Your task to perform on an android device: Add "usb-c" to the cart on bestbuy.com, then select checkout. Image 0: 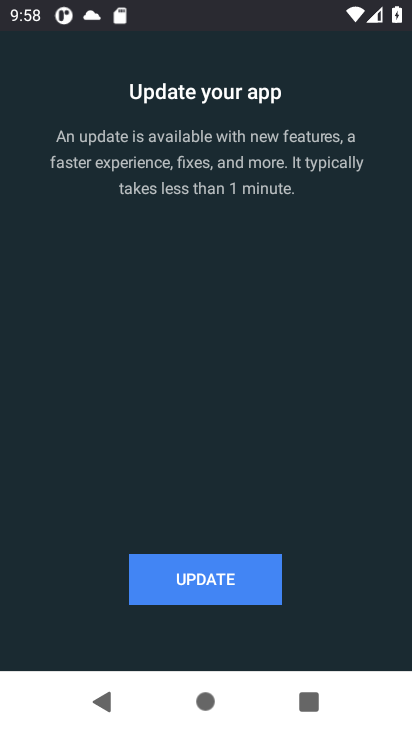
Step 0: press home button
Your task to perform on an android device: Add "usb-c" to the cart on bestbuy.com, then select checkout. Image 1: 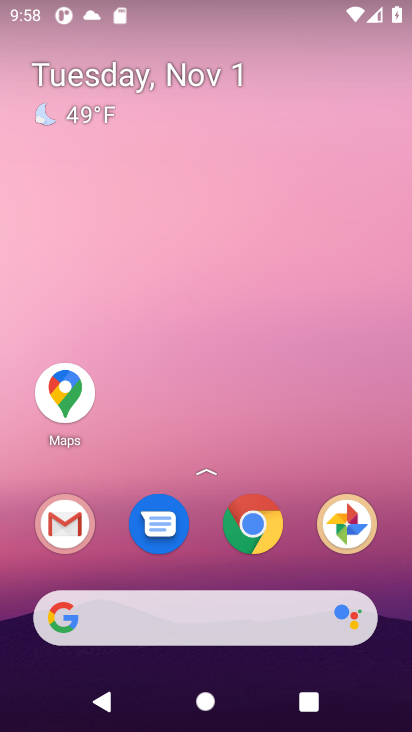
Step 1: click (88, 614)
Your task to perform on an android device: Add "usb-c" to the cart on bestbuy.com, then select checkout. Image 2: 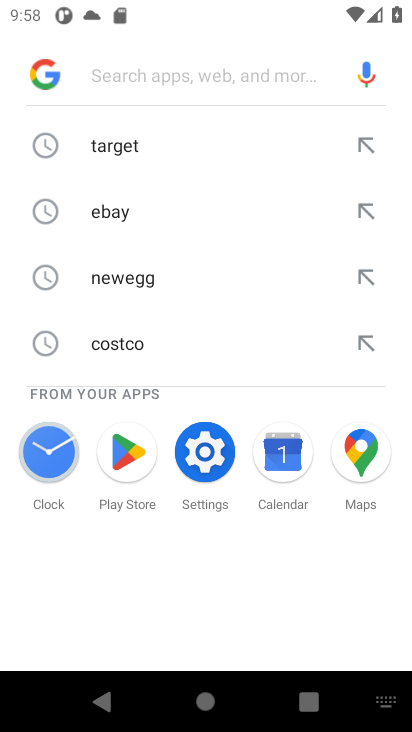
Step 2: press enter
Your task to perform on an android device: Add "usb-c" to the cart on bestbuy.com, then select checkout. Image 3: 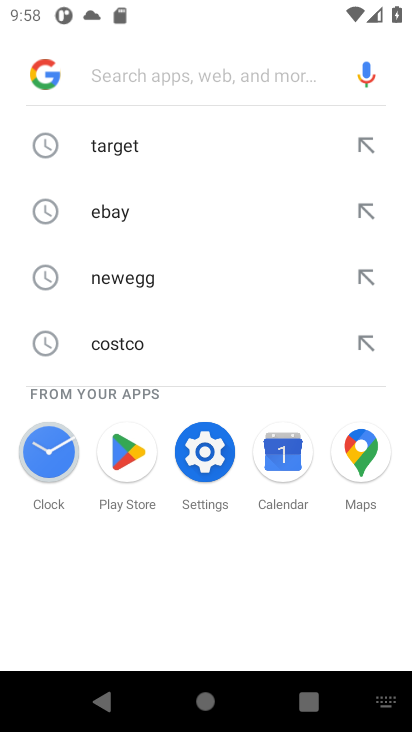
Step 3: type "bestbuy.com"
Your task to perform on an android device: Add "usb-c" to the cart on bestbuy.com, then select checkout. Image 4: 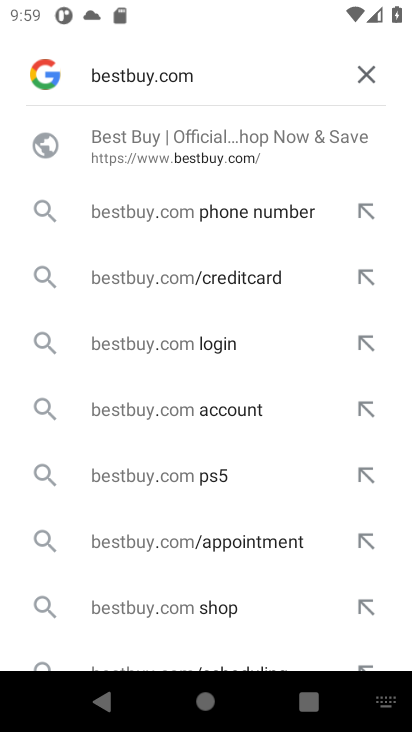
Step 4: press enter
Your task to perform on an android device: Add "usb-c" to the cart on bestbuy.com, then select checkout. Image 5: 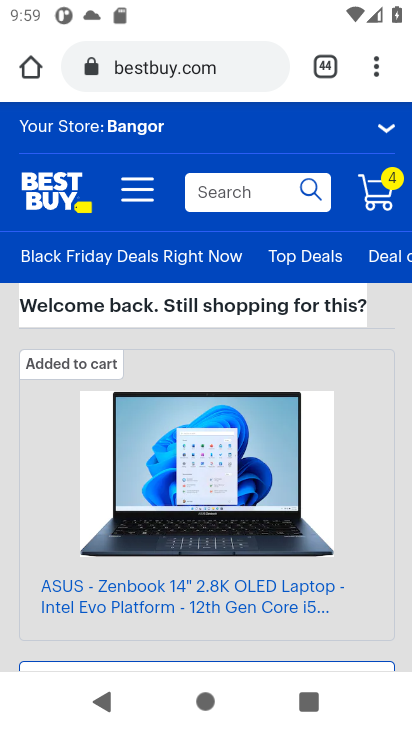
Step 5: click (195, 190)
Your task to perform on an android device: Add "usb-c" to the cart on bestbuy.com, then select checkout. Image 6: 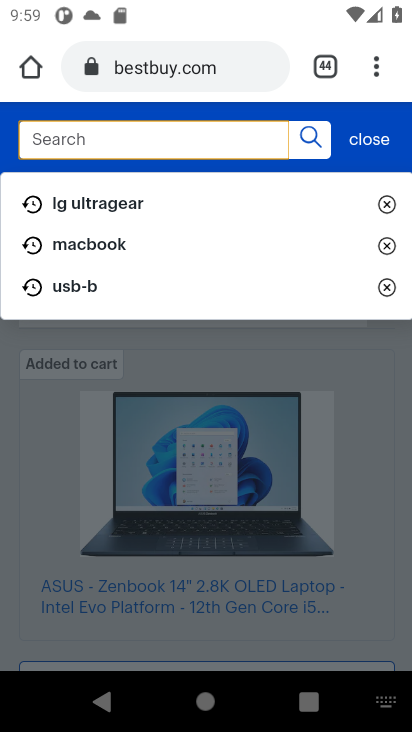
Step 6: press enter
Your task to perform on an android device: Add "usb-c" to the cart on bestbuy.com, then select checkout. Image 7: 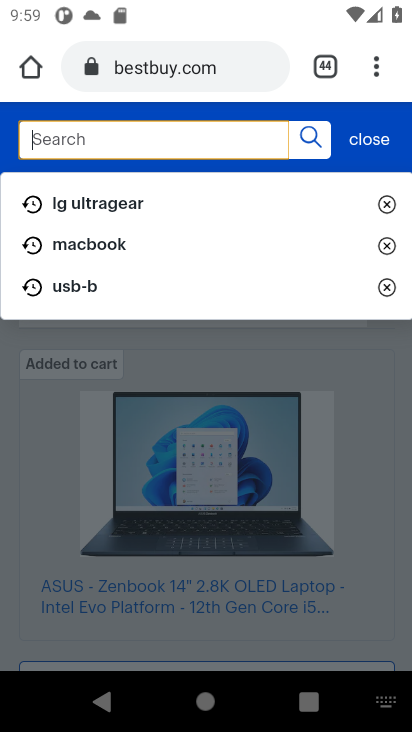
Step 7: type "usb c"
Your task to perform on an android device: Add "usb-c" to the cart on bestbuy.com, then select checkout. Image 8: 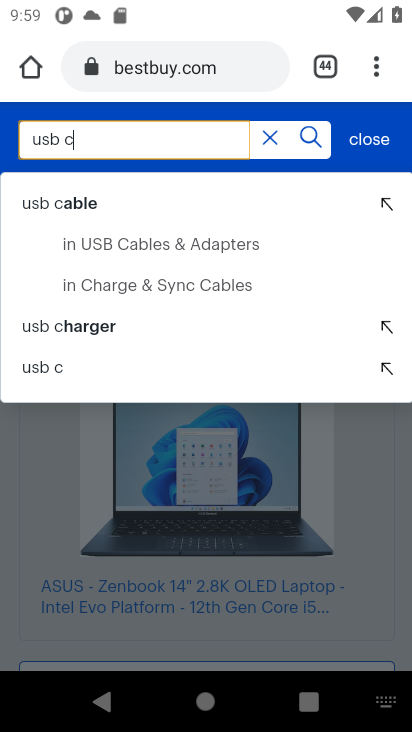
Step 8: click (302, 140)
Your task to perform on an android device: Add "usb-c" to the cart on bestbuy.com, then select checkout. Image 9: 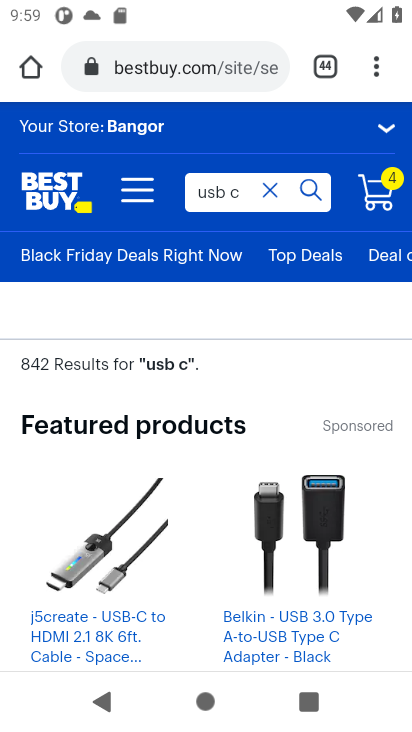
Step 9: drag from (282, 551) to (278, 335)
Your task to perform on an android device: Add "usb-c" to the cart on bestbuy.com, then select checkout. Image 10: 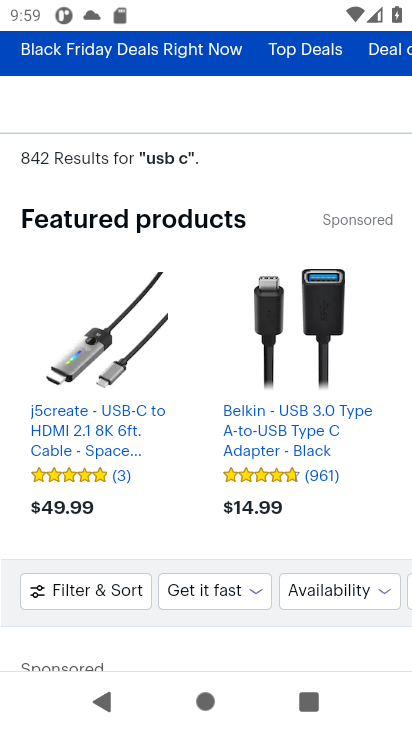
Step 10: drag from (151, 583) to (152, 260)
Your task to perform on an android device: Add "usb-c" to the cart on bestbuy.com, then select checkout. Image 11: 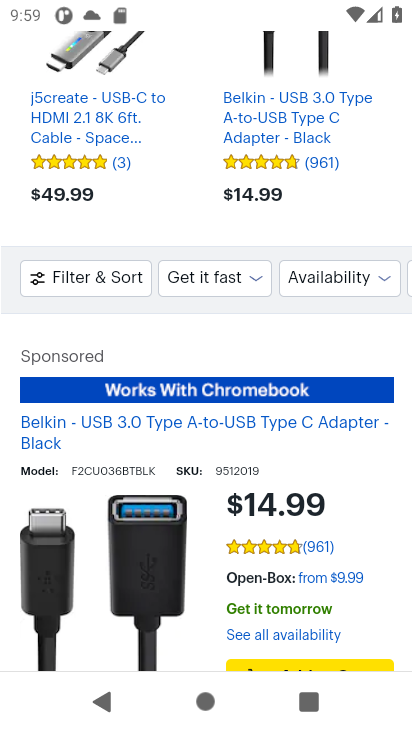
Step 11: click (86, 97)
Your task to perform on an android device: Add "usb-c" to the cart on bestbuy.com, then select checkout. Image 12: 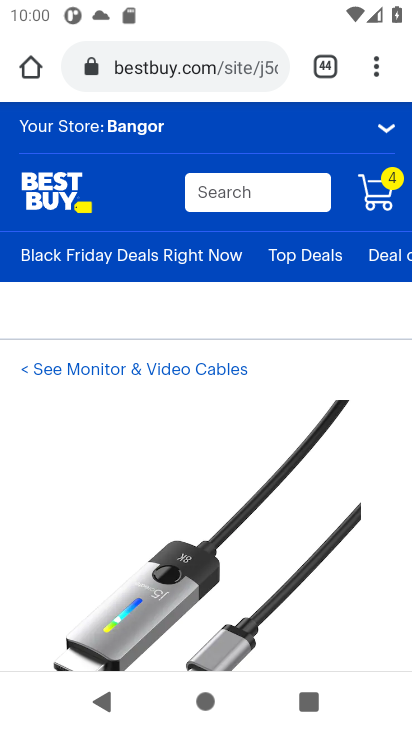
Step 12: drag from (262, 561) to (262, 254)
Your task to perform on an android device: Add "usb-c" to the cart on bestbuy.com, then select checkout. Image 13: 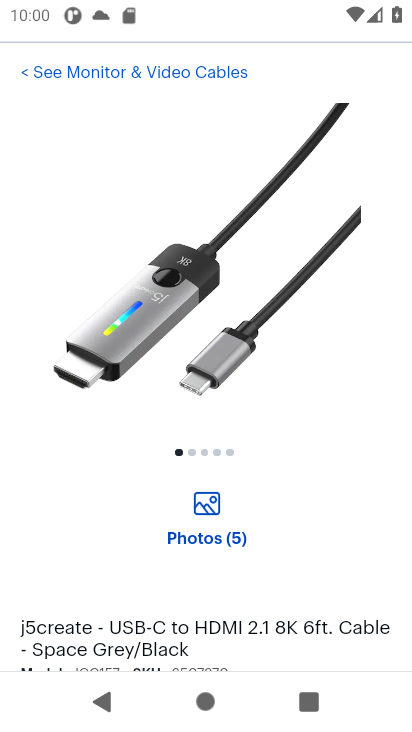
Step 13: drag from (247, 564) to (245, 149)
Your task to perform on an android device: Add "usb-c" to the cart on bestbuy.com, then select checkout. Image 14: 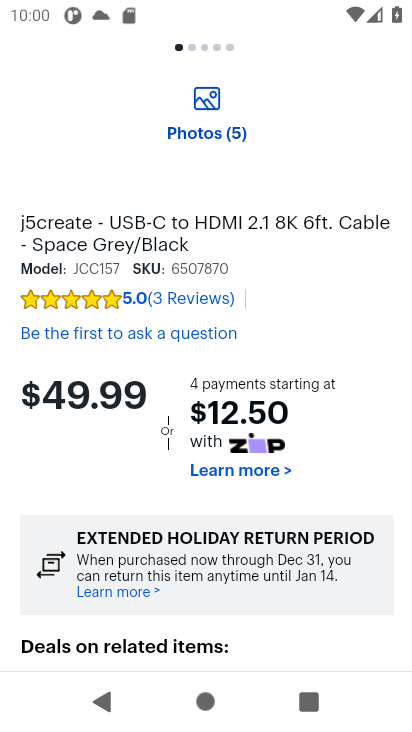
Step 14: drag from (229, 500) to (234, 191)
Your task to perform on an android device: Add "usb-c" to the cart on bestbuy.com, then select checkout. Image 15: 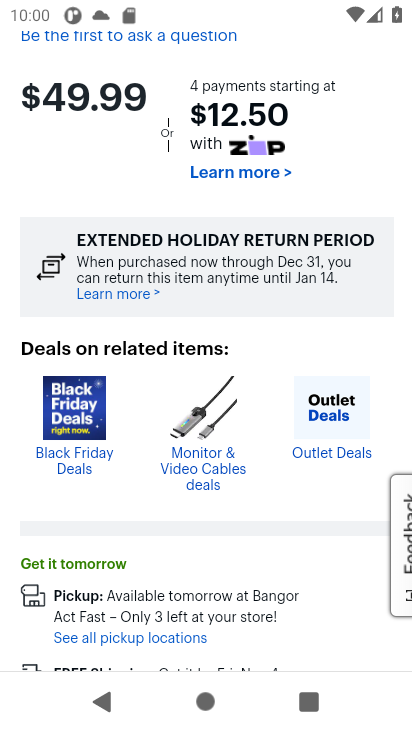
Step 15: drag from (221, 585) to (216, 217)
Your task to perform on an android device: Add "usb-c" to the cart on bestbuy.com, then select checkout. Image 16: 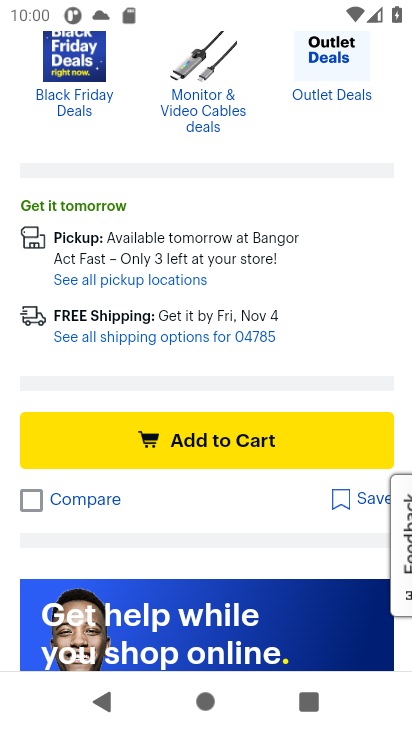
Step 16: click (173, 445)
Your task to perform on an android device: Add "usb-c" to the cart on bestbuy.com, then select checkout. Image 17: 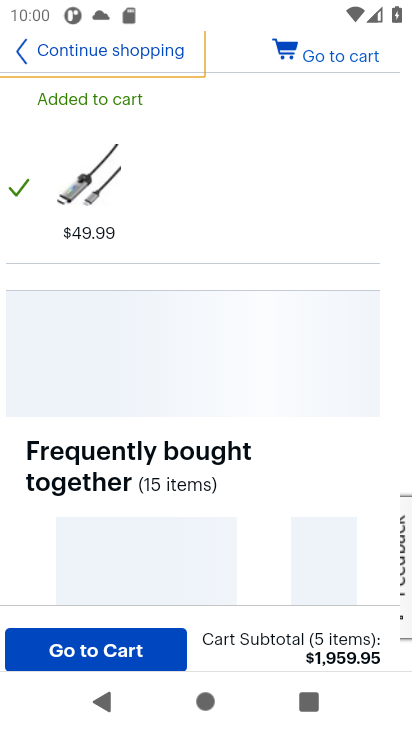
Step 17: click (59, 649)
Your task to perform on an android device: Add "usb-c" to the cart on bestbuy.com, then select checkout. Image 18: 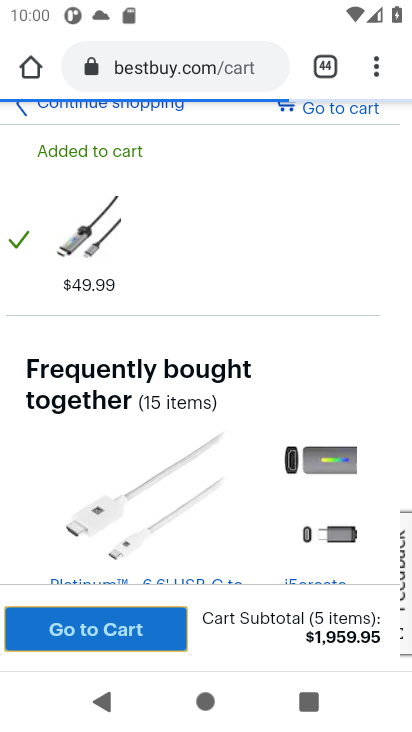
Step 18: click (120, 637)
Your task to perform on an android device: Add "usb-c" to the cart on bestbuy.com, then select checkout. Image 19: 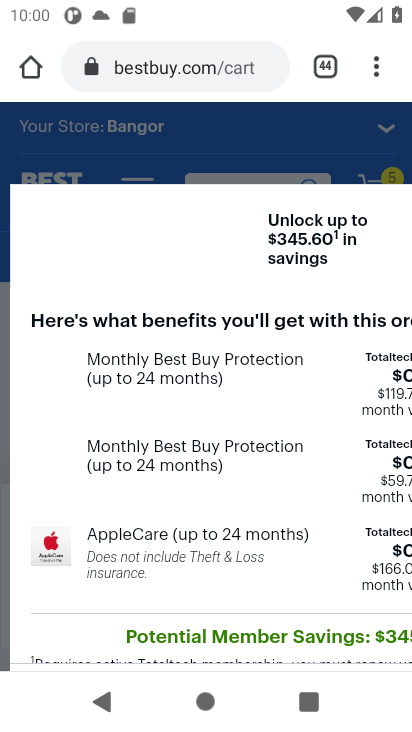
Step 19: click (230, 592)
Your task to perform on an android device: Add "usb-c" to the cart on bestbuy.com, then select checkout. Image 20: 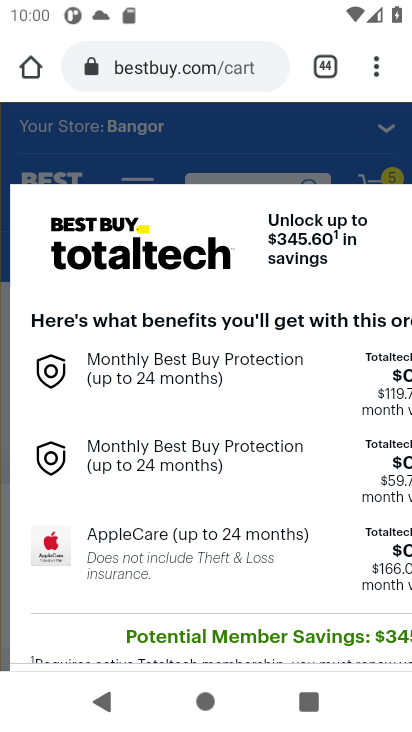
Step 20: drag from (239, 511) to (279, 197)
Your task to perform on an android device: Add "usb-c" to the cart on bestbuy.com, then select checkout. Image 21: 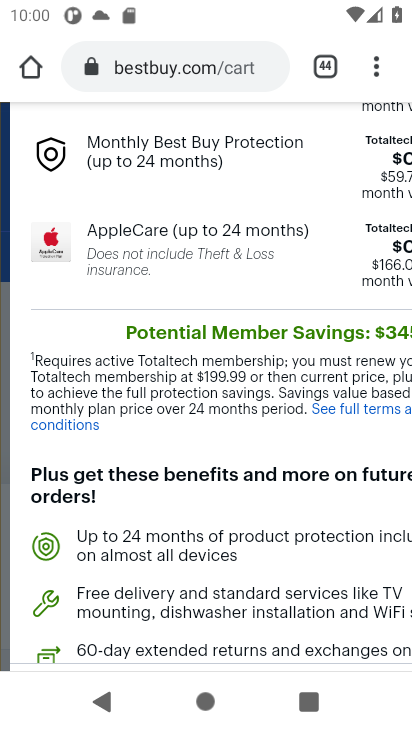
Step 21: drag from (195, 518) to (187, 142)
Your task to perform on an android device: Add "usb-c" to the cart on bestbuy.com, then select checkout. Image 22: 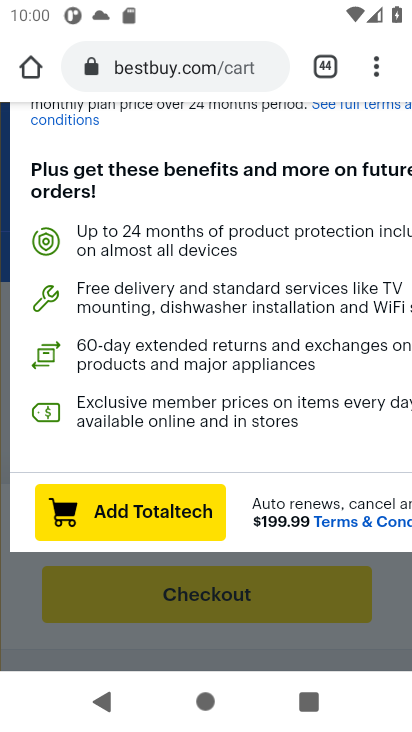
Step 22: click (219, 592)
Your task to perform on an android device: Add "usb-c" to the cart on bestbuy.com, then select checkout. Image 23: 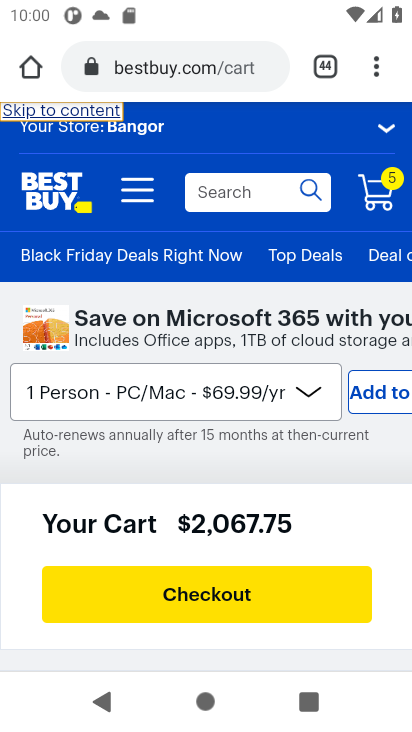
Step 23: click (219, 592)
Your task to perform on an android device: Add "usb-c" to the cart on bestbuy.com, then select checkout. Image 24: 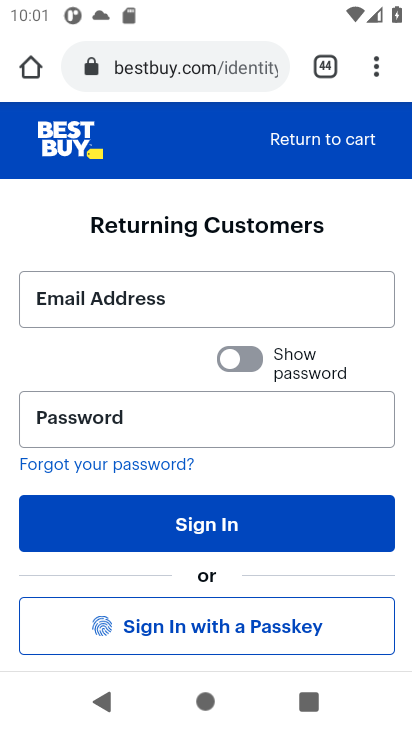
Step 24: task complete